Your task to perform on an android device: Check the weather Image 0: 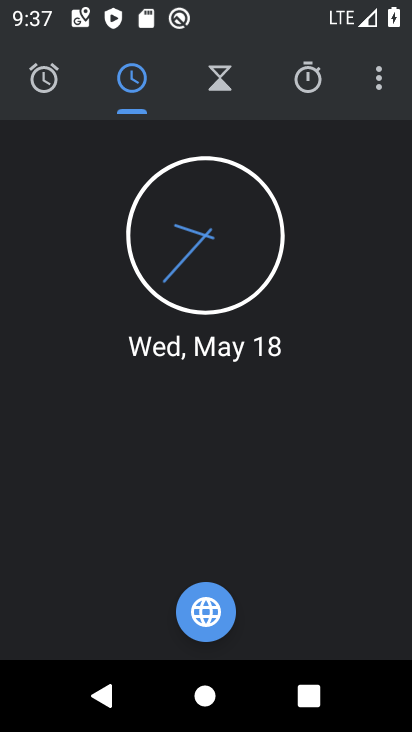
Step 0: press home button
Your task to perform on an android device: Check the weather Image 1: 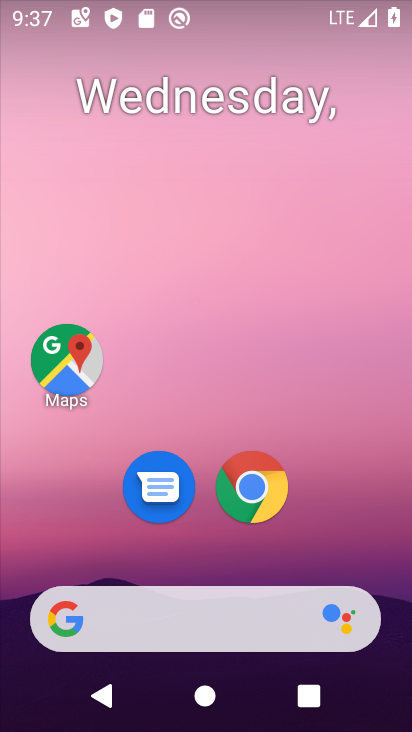
Step 1: click (203, 606)
Your task to perform on an android device: Check the weather Image 2: 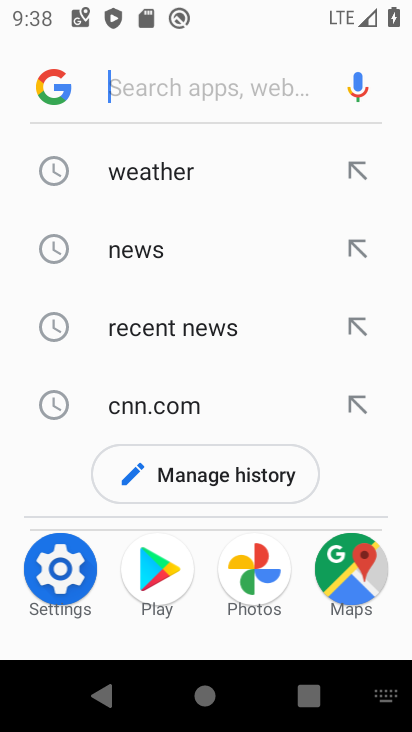
Step 2: click (140, 176)
Your task to perform on an android device: Check the weather Image 3: 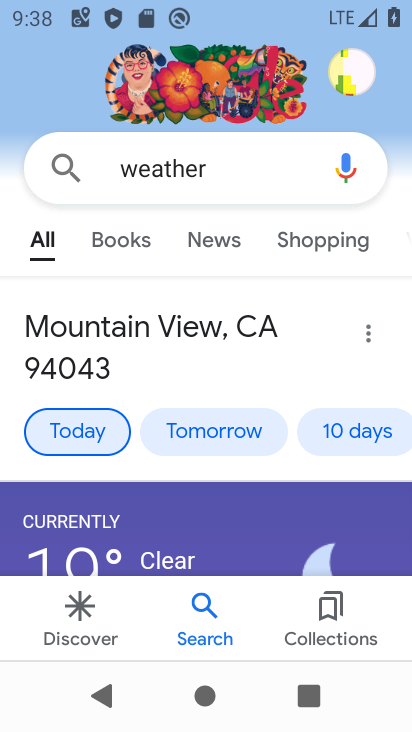
Step 3: task complete